Your task to perform on an android device: turn off airplane mode Image 0: 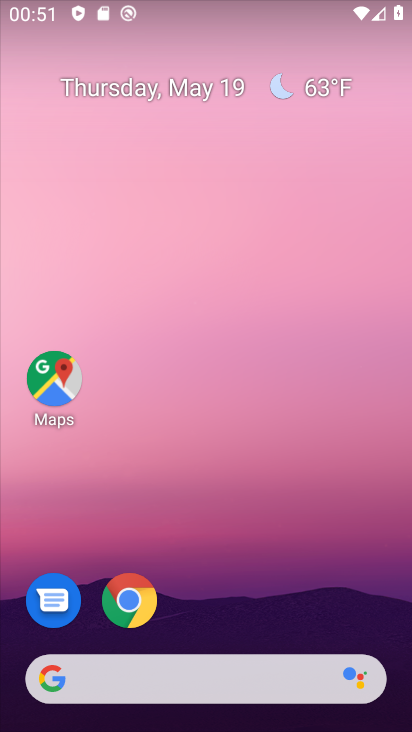
Step 0: drag from (284, 581) to (285, 17)
Your task to perform on an android device: turn off airplane mode Image 1: 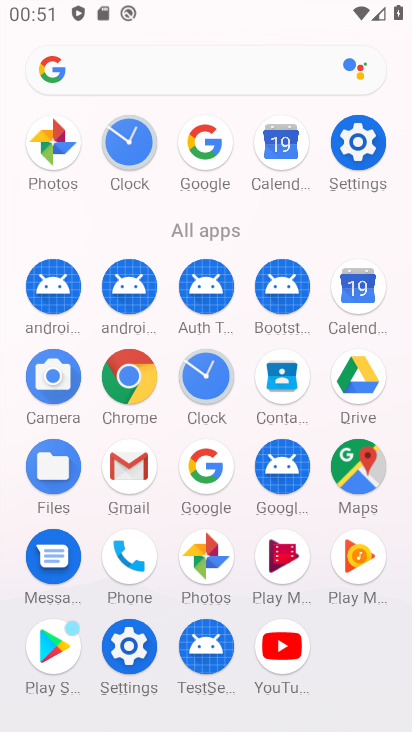
Step 1: click (345, 149)
Your task to perform on an android device: turn off airplane mode Image 2: 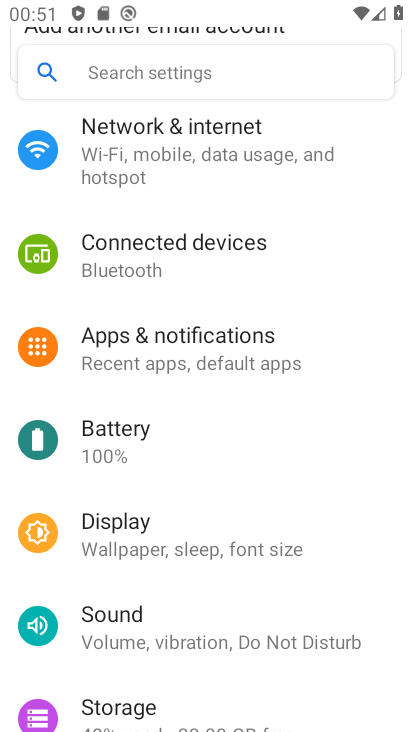
Step 2: click (155, 154)
Your task to perform on an android device: turn off airplane mode Image 3: 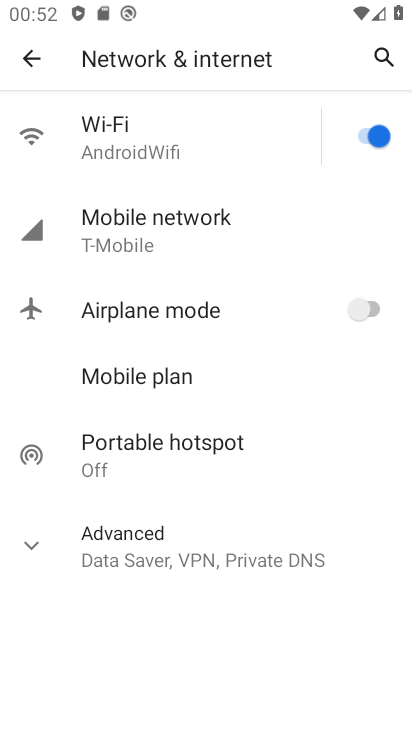
Step 3: task complete